Your task to perform on an android device: see tabs open on other devices in the chrome app Image 0: 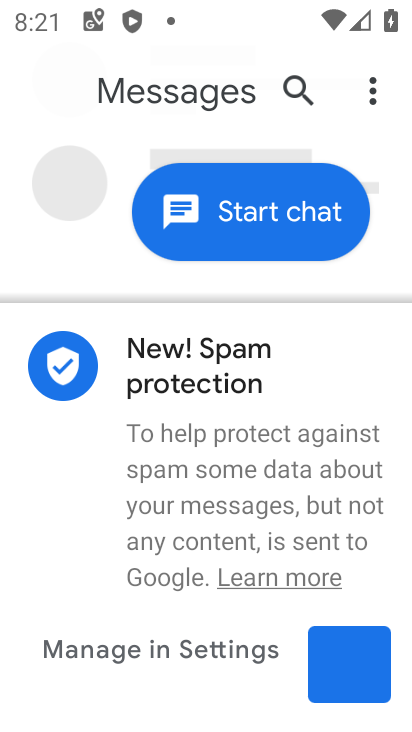
Step 0: press home button
Your task to perform on an android device: see tabs open on other devices in the chrome app Image 1: 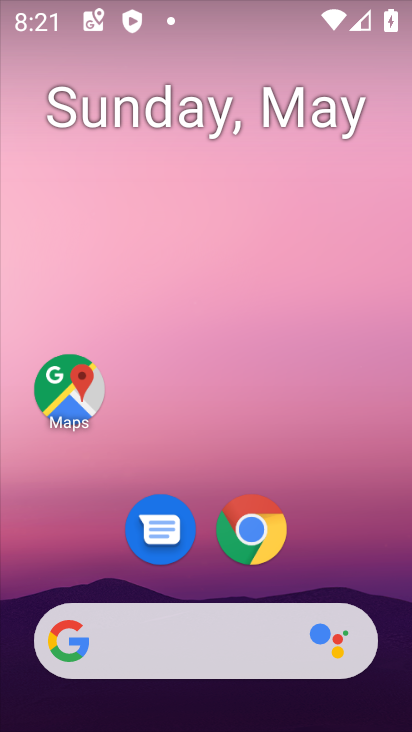
Step 1: click (273, 549)
Your task to perform on an android device: see tabs open on other devices in the chrome app Image 2: 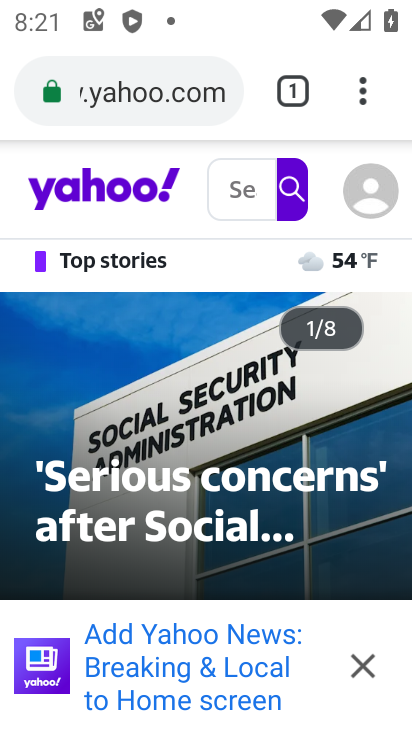
Step 2: click (366, 97)
Your task to perform on an android device: see tabs open on other devices in the chrome app Image 3: 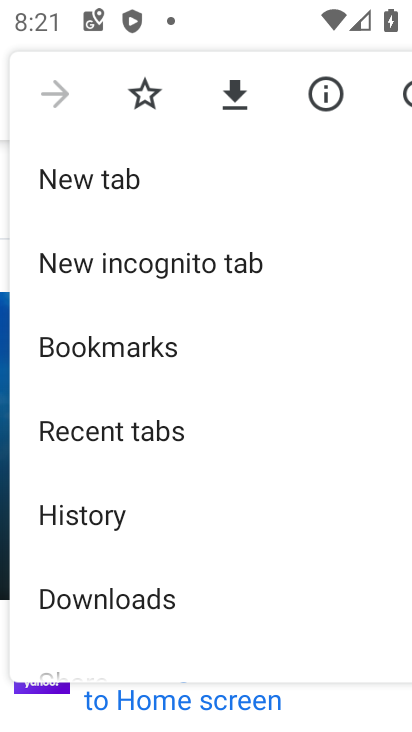
Step 3: click (114, 436)
Your task to perform on an android device: see tabs open on other devices in the chrome app Image 4: 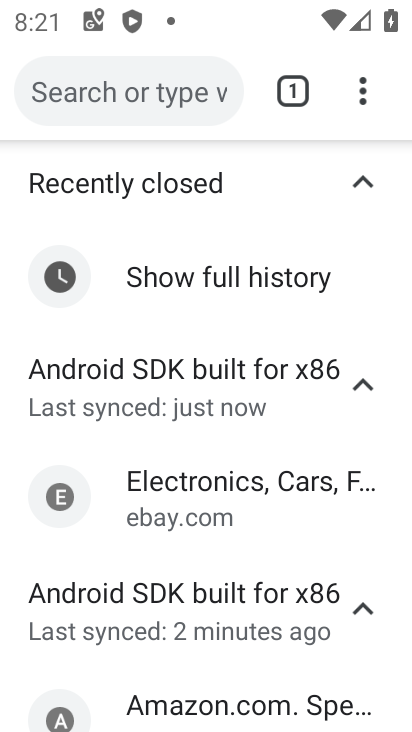
Step 4: task complete